Your task to perform on an android device: clear history in the chrome app Image 0: 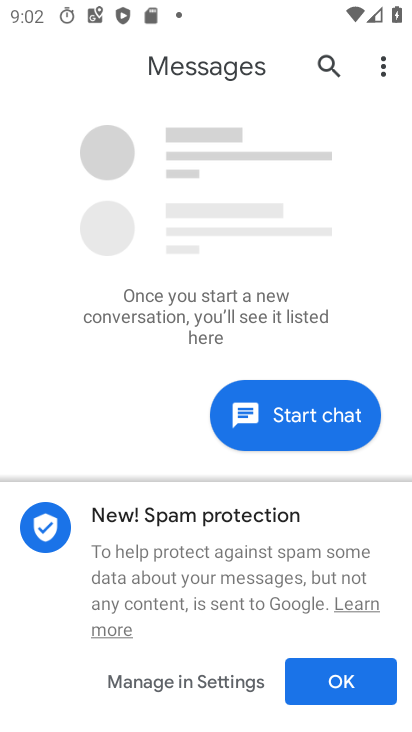
Step 0: click (338, 686)
Your task to perform on an android device: clear history in the chrome app Image 1: 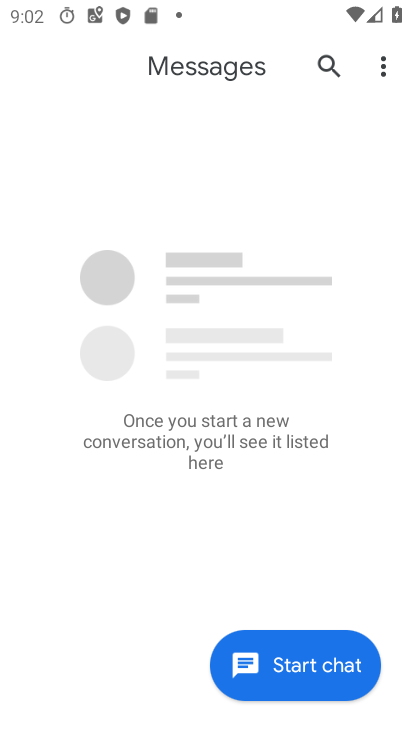
Step 1: drag from (158, 562) to (278, 119)
Your task to perform on an android device: clear history in the chrome app Image 2: 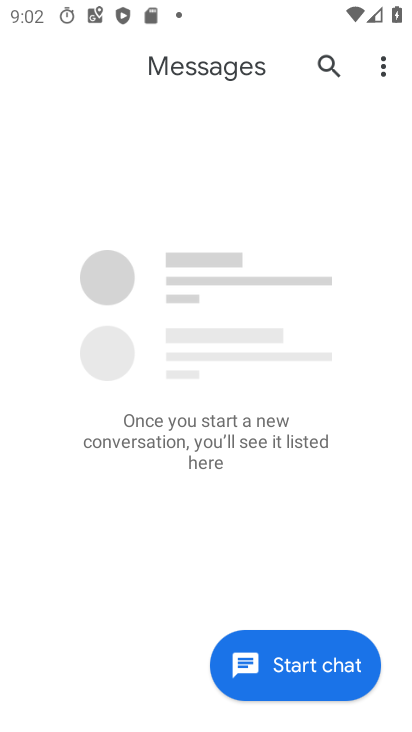
Step 2: press home button
Your task to perform on an android device: clear history in the chrome app Image 3: 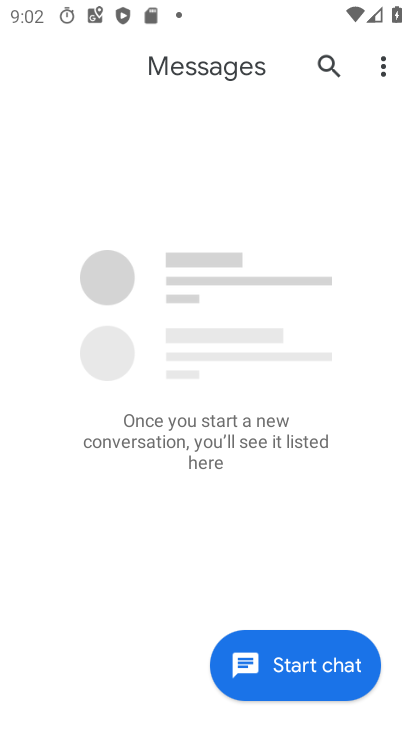
Step 3: drag from (187, 234) to (211, 108)
Your task to perform on an android device: clear history in the chrome app Image 4: 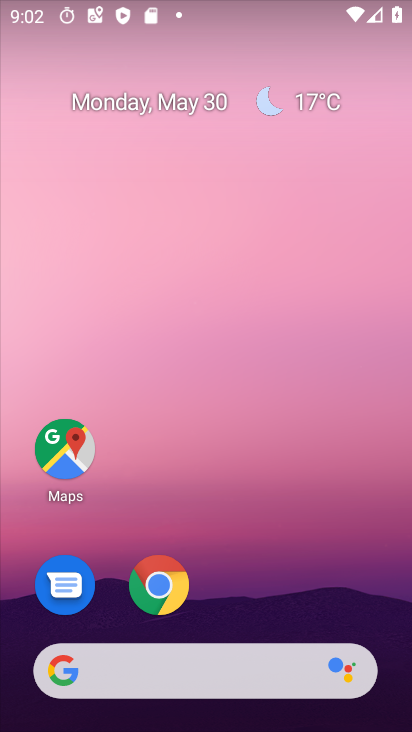
Step 4: click (155, 596)
Your task to perform on an android device: clear history in the chrome app Image 5: 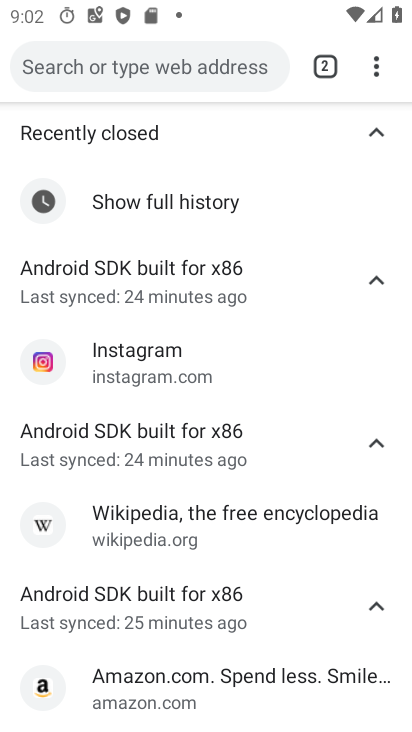
Step 5: drag from (384, 60) to (173, 373)
Your task to perform on an android device: clear history in the chrome app Image 6: 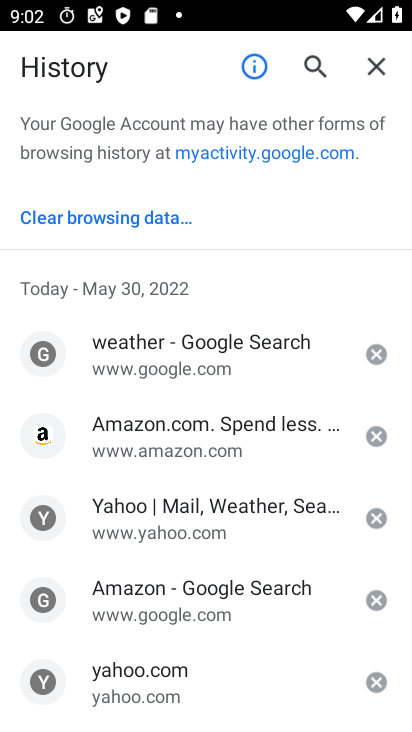
Step 6: click (79, 219)
Your task to perform on an android device: clear history in the chrome app Image 7: 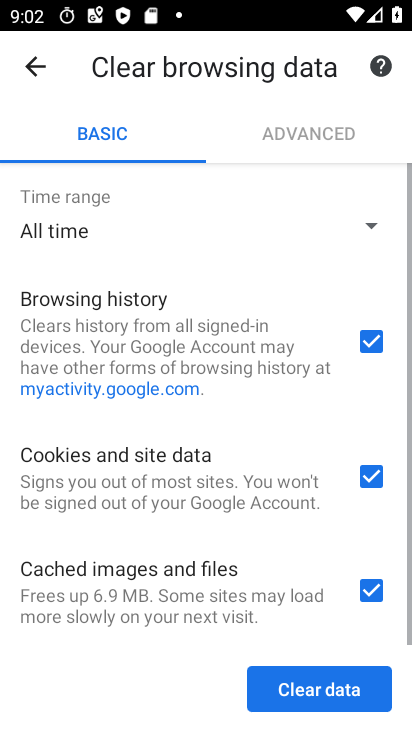
Step 7: click (288, 683)
Your task to perform on an android device: clear history in the chrome app Image 8: 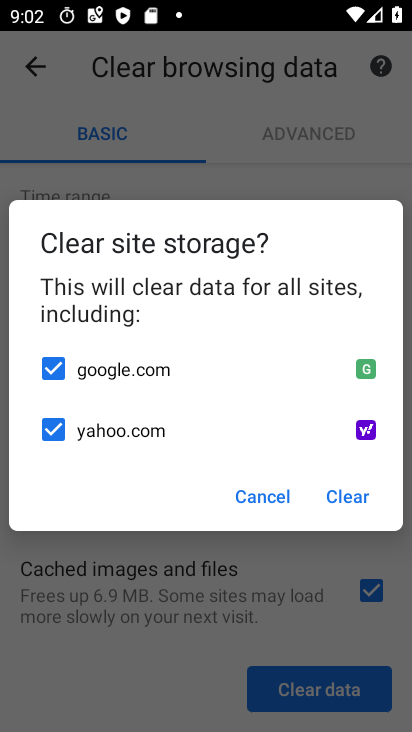
Step 8: click (327, 485)
Your task to perform on an android device: clear history in the chrome app Image 9: 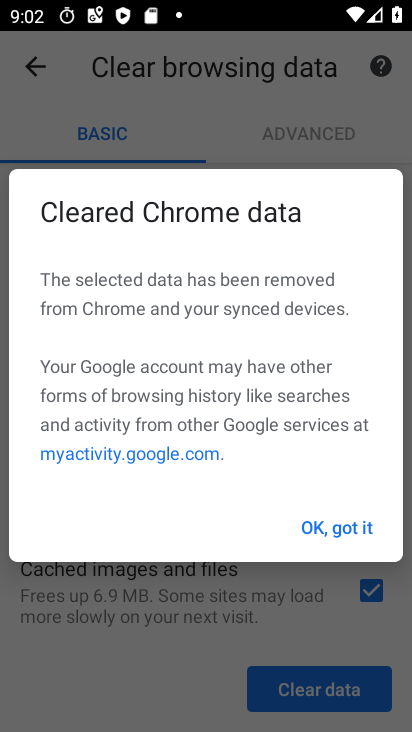
Step 9: click (325, 520)
Your task to perform on an android device: clear history in the chrome app Image 10: 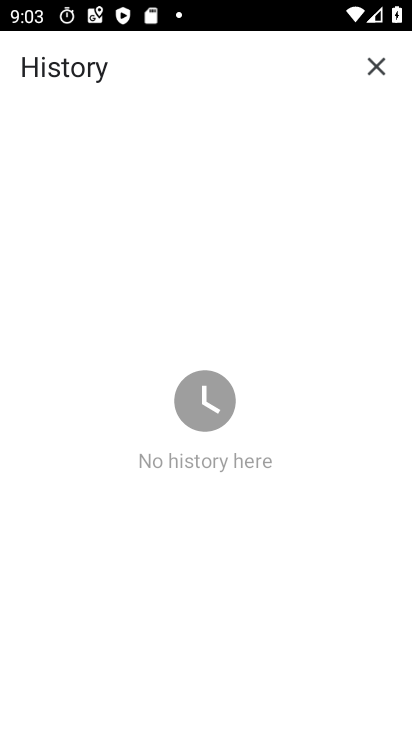
Step 10: click (272, 429)
Your task to perform on an android device: clear history in the chrome app Image 11: 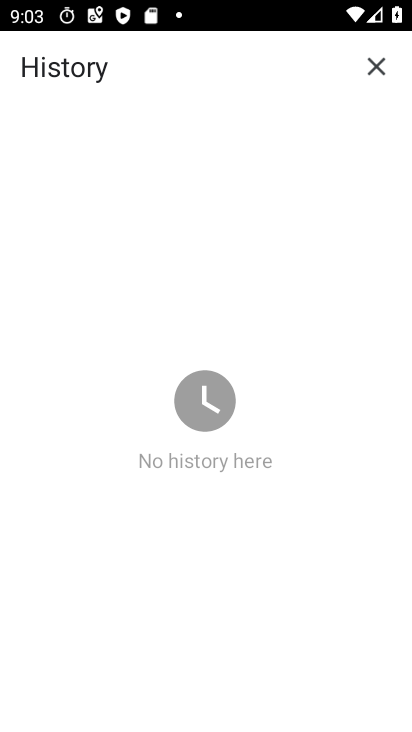
Step 11: task complete